Your task to perform on an android device: empty trash in the gmail app Image 0: 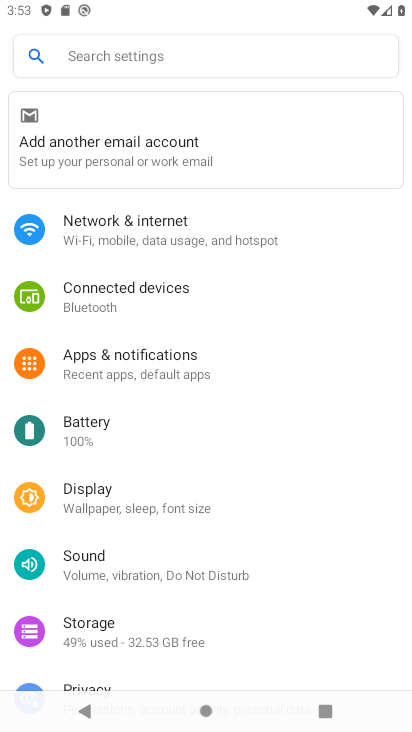
Step 0: press back button
Your task to perform on an android device: empty trash in the gmail app Image 1: 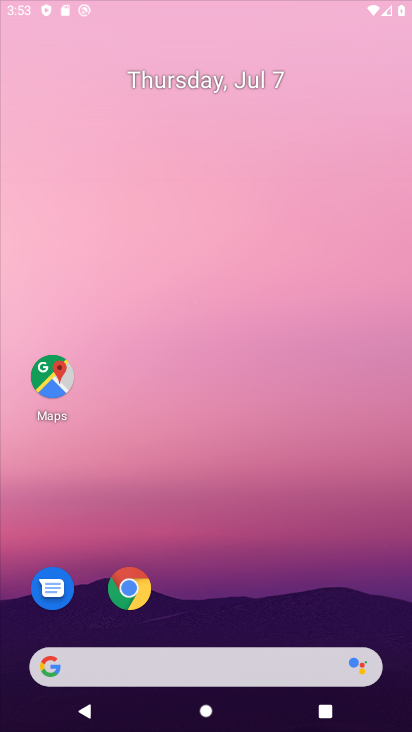
Step 1: press back button
Your task to perform on an android device: empty trash in the gmail app Image 2: 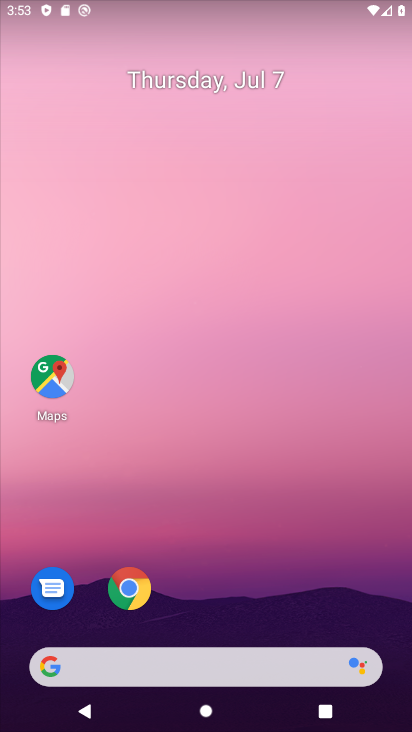
Step 2: drag from (212, 397) to (204, 335)
Your task to perform on an android device: empty trash in the gmail app Image 3: 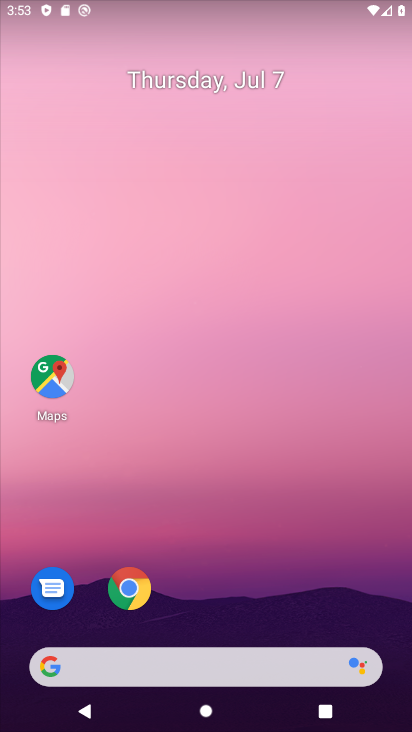
Step 3: drag from (273, 646) to (247, 167)
Your task to perform on an android device: empty trash in the gmail app Image 4: 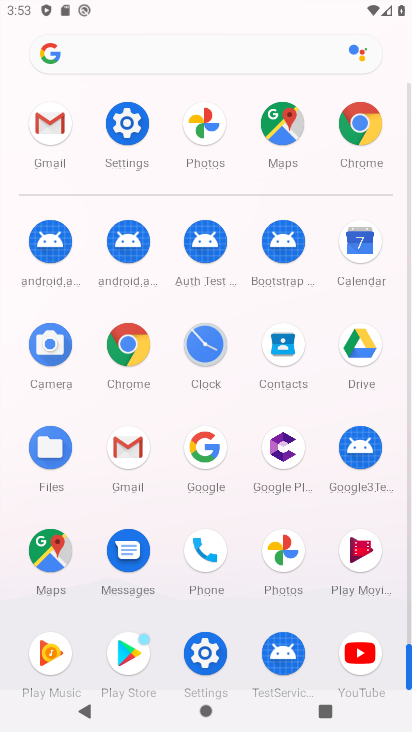
Step 4: click (127, 455)
Your task to perform on an android device: empty trash in the gmail app Image 5: 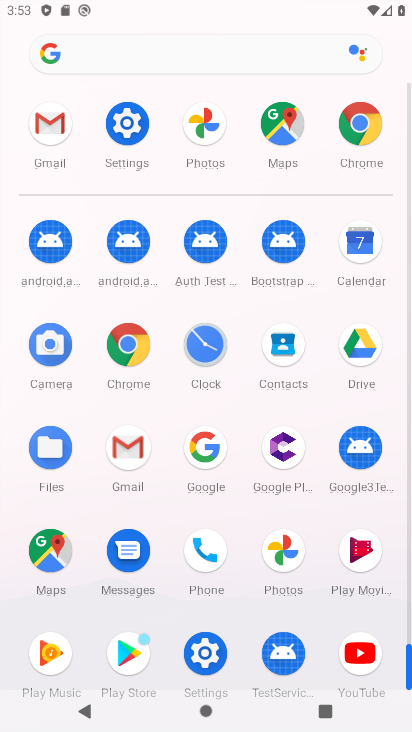
Step 5: click (127, 455)
Your task to perform on an android device: empty trash in the gmail app Image 6: 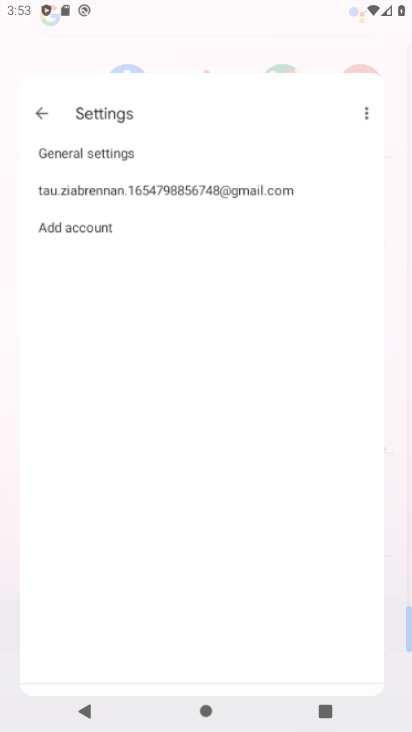
Step 6: click (127, 455)
Your task to perform on an android device: empty trash in the gmail app Image 7: 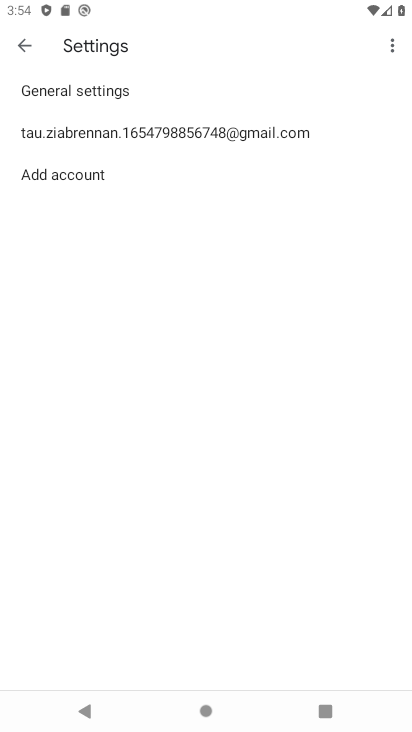
Step 7: click (20, 43)
Your task to perform on an android device: empty trash in the gmail app Image 8: 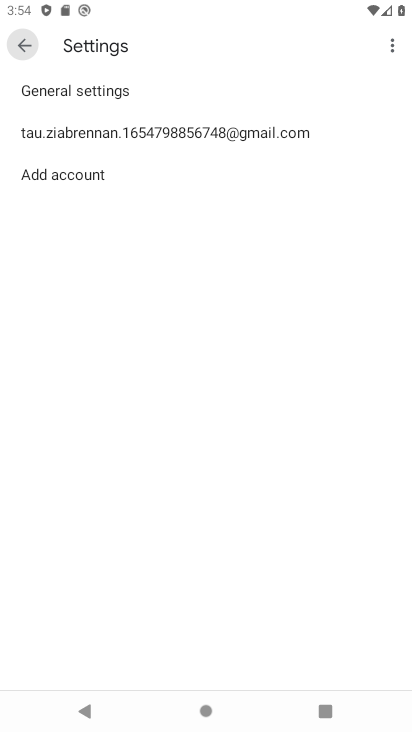
Step 8: click (20, 43)
Your task to perform on an android device: empty trash in the gmail app Image 9: 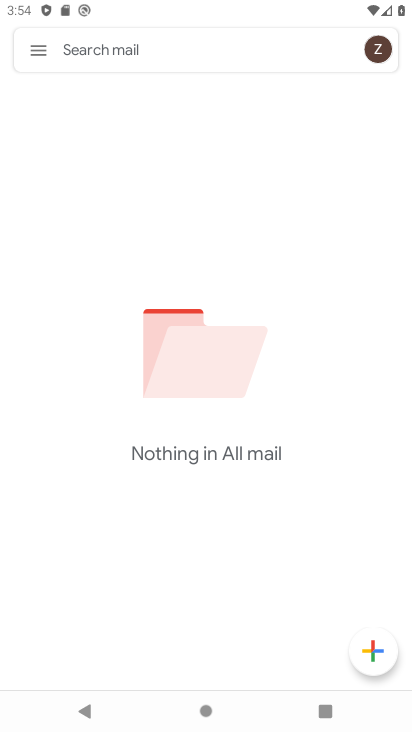
Step 9: drag from (242, 528) to (284, 97)
Your task to perform on an android device: empty trash in the gmail app Image 10: 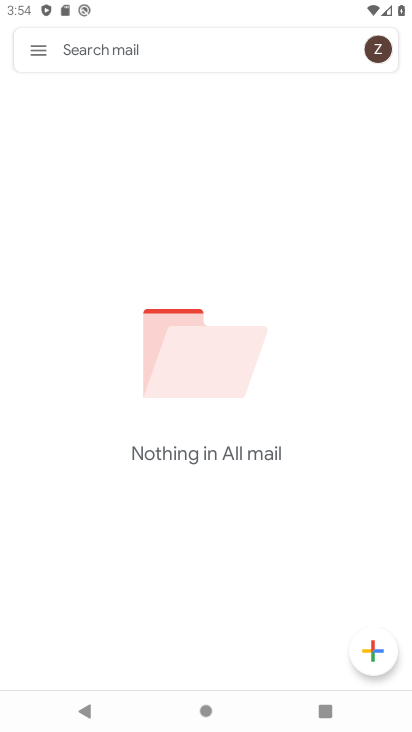
Step 10: click (39, 54)
Your task to perform on an android device: empty trash in the gmail app Image 11: 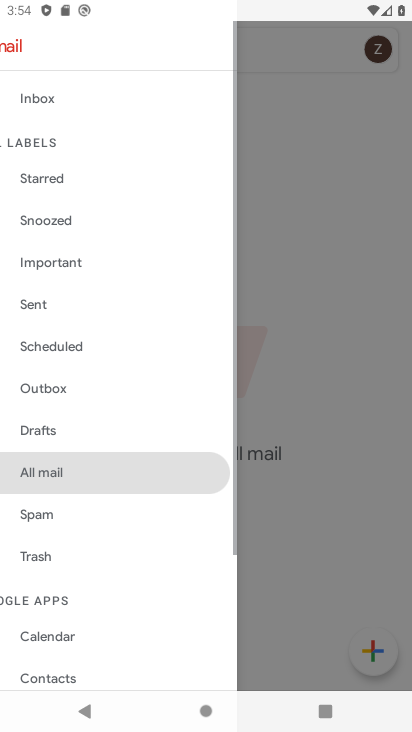
Step 11: click (46, 50)
Your task to perform on an android device: empty trash in the gmail app Image 12: 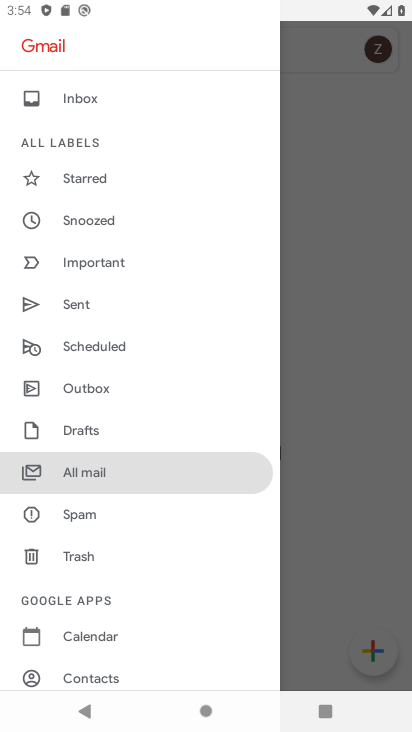
Step 12: click (72, 555)
Your task to perform on an android device: empty trash in the gmail app Image 13: 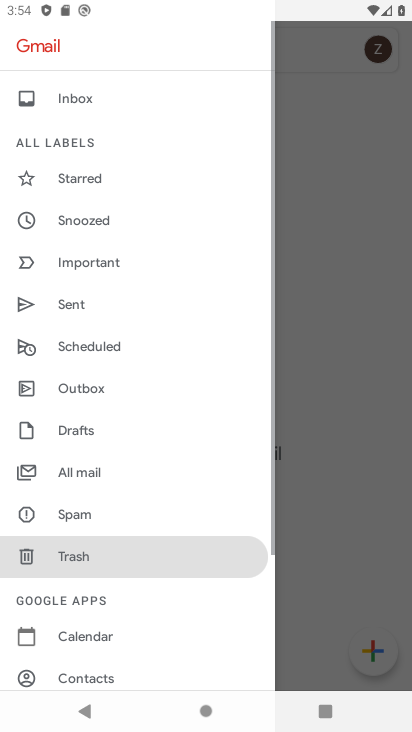
Step 13: click (84, 551)
Your task to perform on an android device: empty trash in the gmail app Image 14: 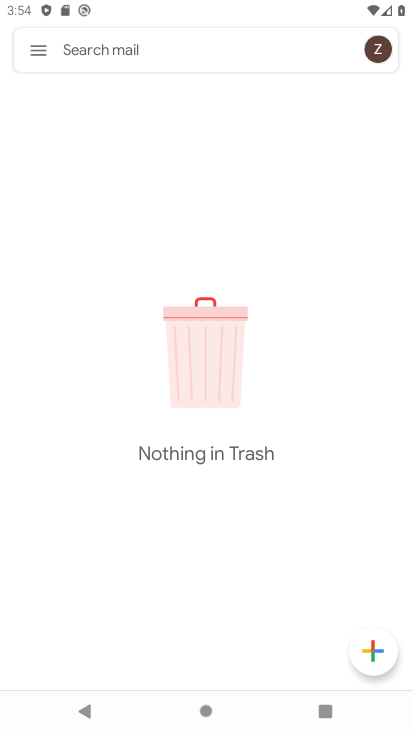
Step 14: task complete